Your task to perform on an android device: toggle notifications settings in the gmail app Image 0: 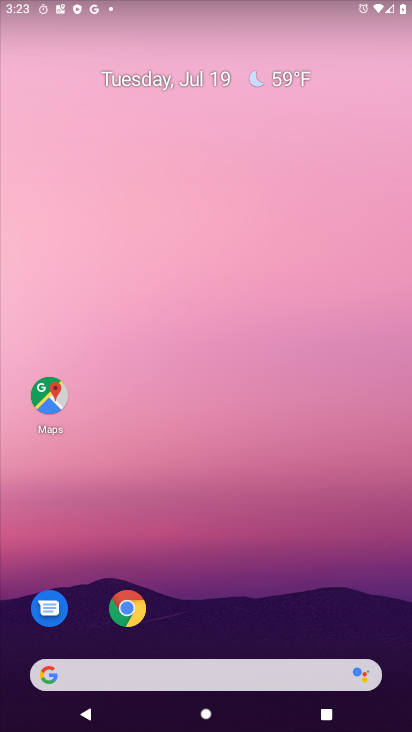
Step 0: drag from (300, 623) to (205, 31)
Your task to perform on an android device: toggle notifications settings in the gmail app Image 1: 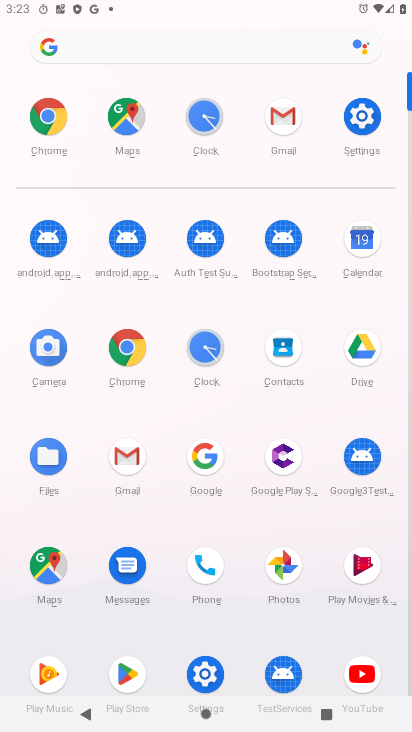
Step 1: click (293, 112)
Your task to perform on an android device: toggle notifications settings in the gmail app Image 2: 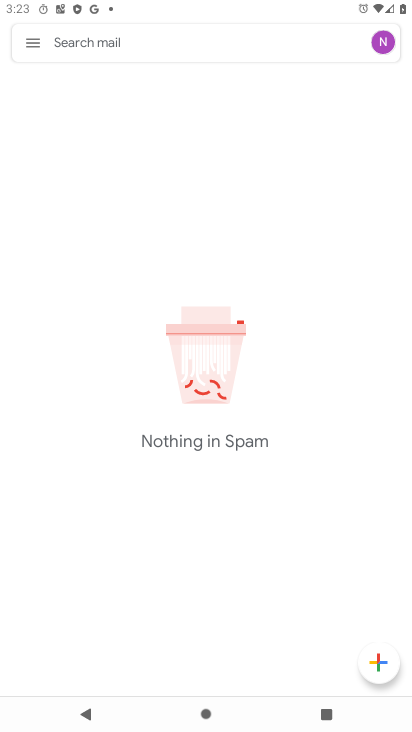
Step 2: click (37, 47)
Your task to perform on an android device: toggle notifications settings in the gmail app Image 3: 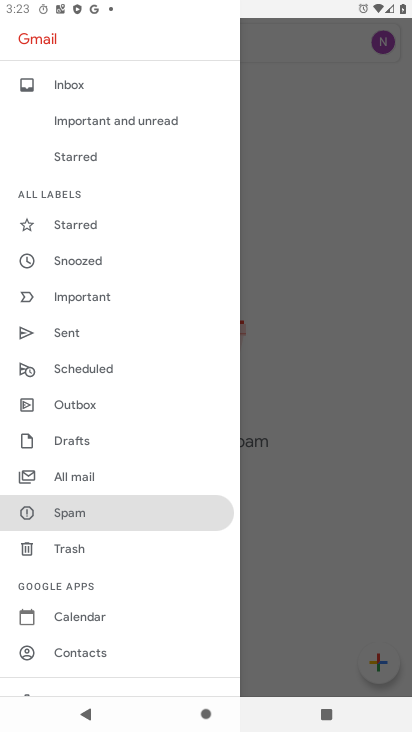
Step 3: drag from (156, 617) to (114, 268)
Your task to perform on an android device: toggle notifications settings in the gmail app Image 4: 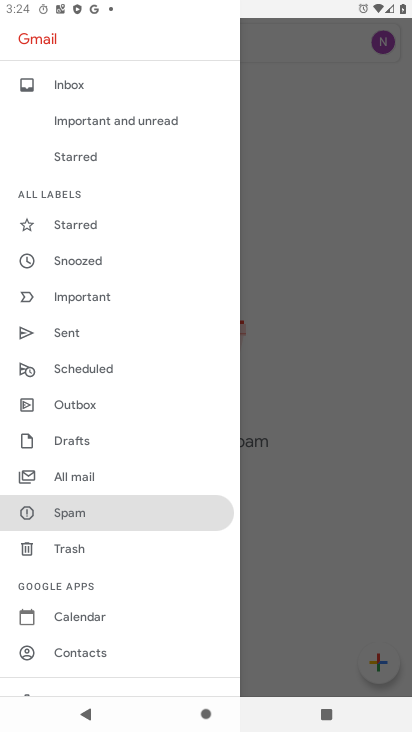
Step 4: drag from (151, 679) to (107, 285)
Your task to perform on an android device: toggle notifications settings in the gmail app Image 5: 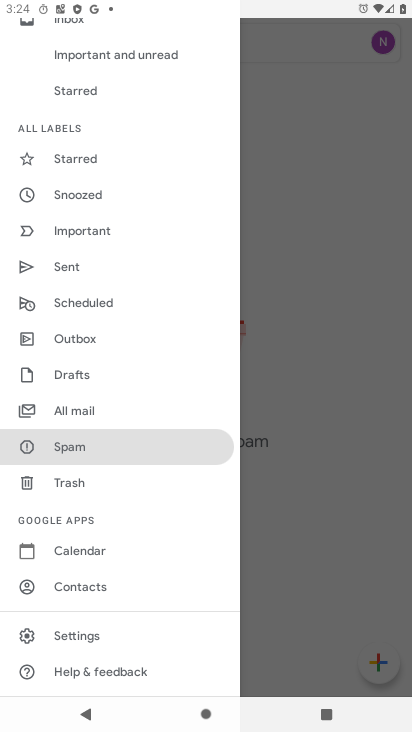
Step 5: click (122, 631)
Your task to perform on an android device: toggle notifications settings in the gmail app Image 6: 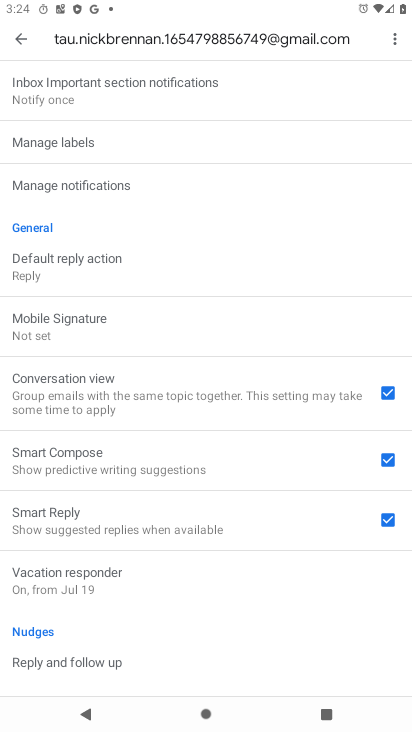
Step 6: click (174, 188)
Your task to perform on an android device: toggle notifications settings in the gmail app Image 7: 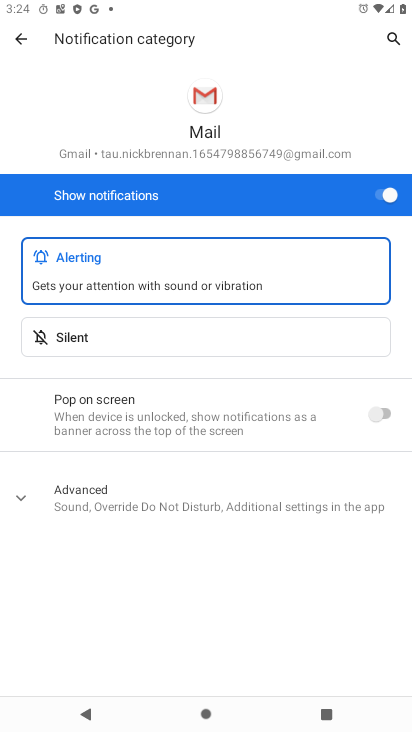
Step 7: click (242, 334)
Your task to perform on an android device: toggle notifications settings in the gmail app Image 8: 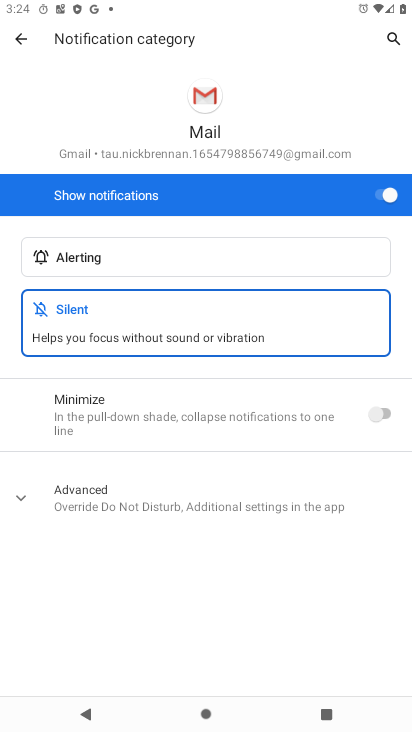
Step 8: click (379, 415)
Your task to perform on an android device: toggle notifications settings in the gmail app Image 9: 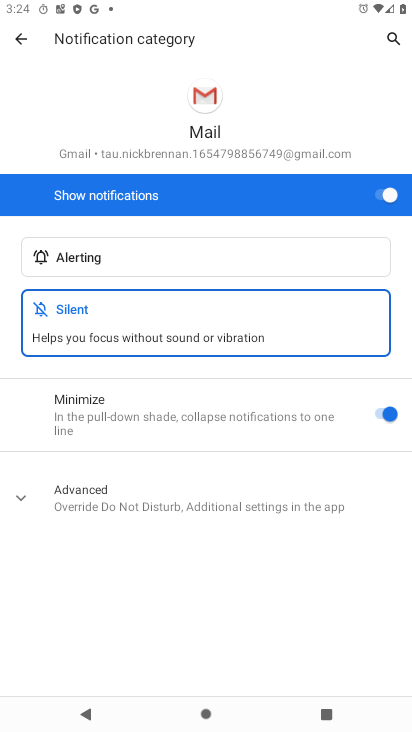
Step 9: task complete